Your task to perform on an android device: toggle airplane mode Image 0: 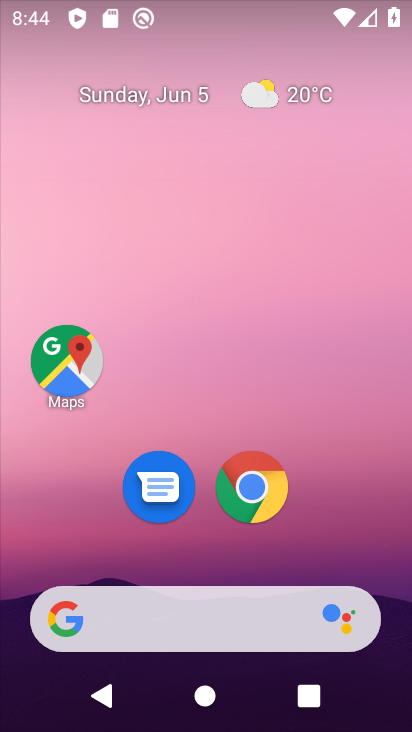
Step 0: drag from (188, 607) to (198, 458)
Your task to perform on an android device: toggle airplane mode Image 1: 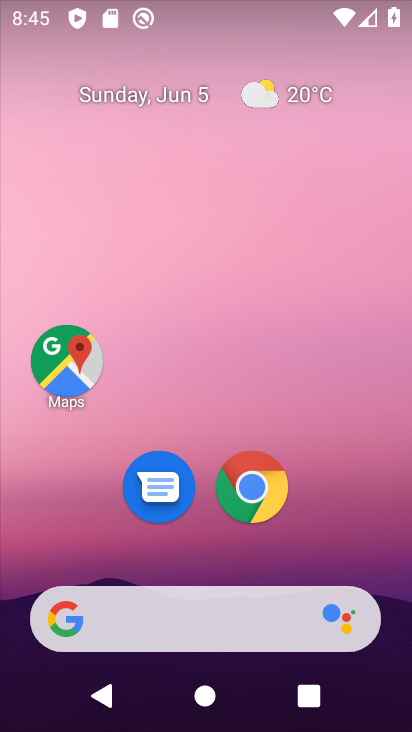
Step 1: drag from (207, 585) to (216, 334)
Your task to perform on an android device: toggle airplane mode Image 2: 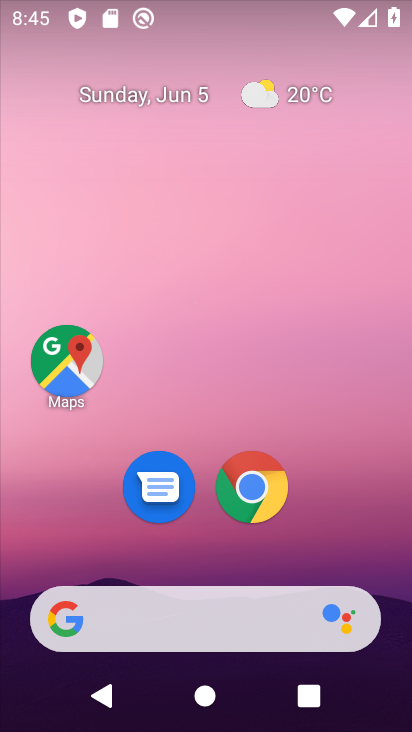
Step 2: drag from (214, 625) to (192, 221)
Your task to perform on an android device: toggle airplane mode Image 3: 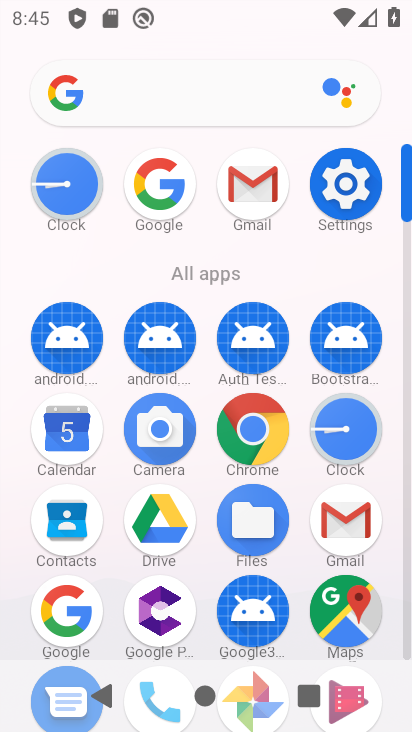
Step 3: click (354, 204)
Your task to perform on an android device: toggle airplane mode Image 4: 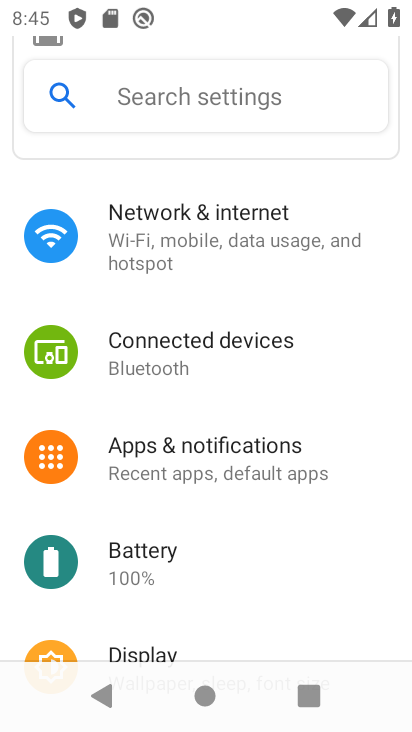
Step 4: drag from (258, 451) to (224, 632)
Your task to perform on an android device: toggle airplane mode Image 5: 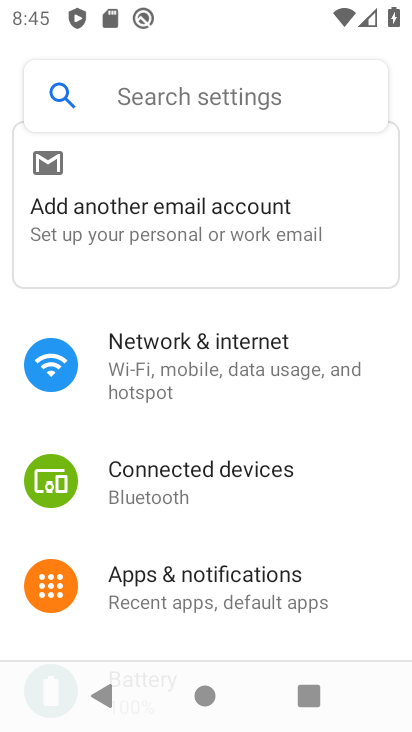
Step 5: click (277, 373)
Your task to perform on an android device: toggle airplane mode Image 6: 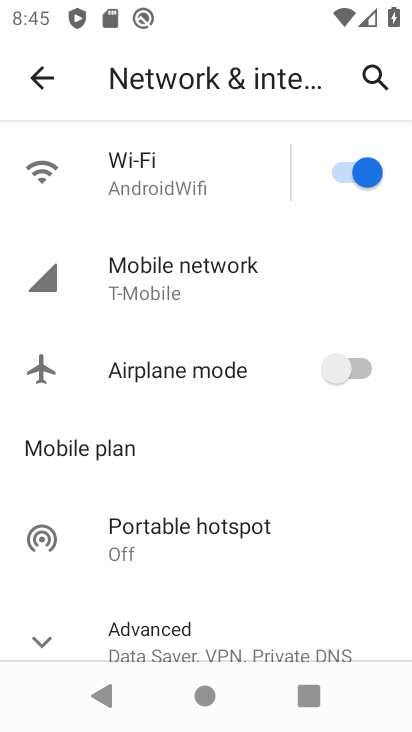
Step 6: click (241, 379)
Your task to perform on an android device: toggle airplane mode Image 7: 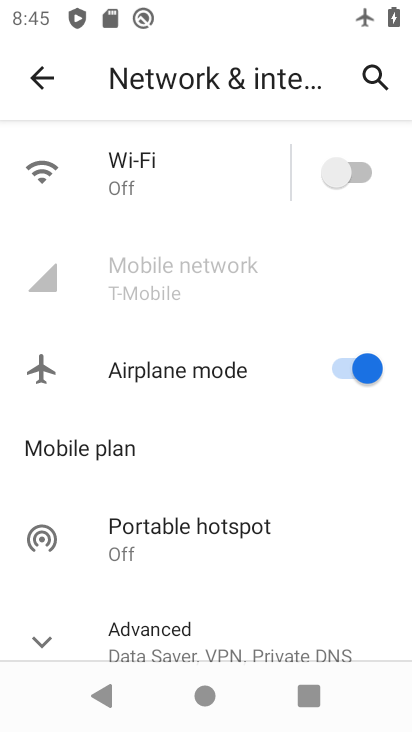
Step 7: task complete